Your task to perform on an android device: all mails in gmail Image 0: 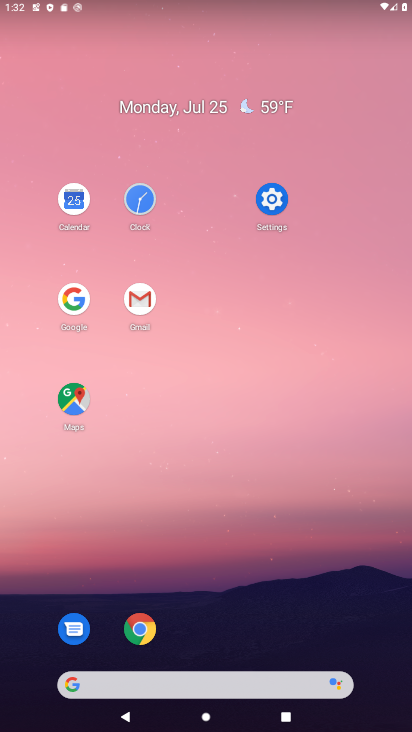
Step 0: click (139, 305)
Your task to perform on an android device: all mails in gmail Image 1: 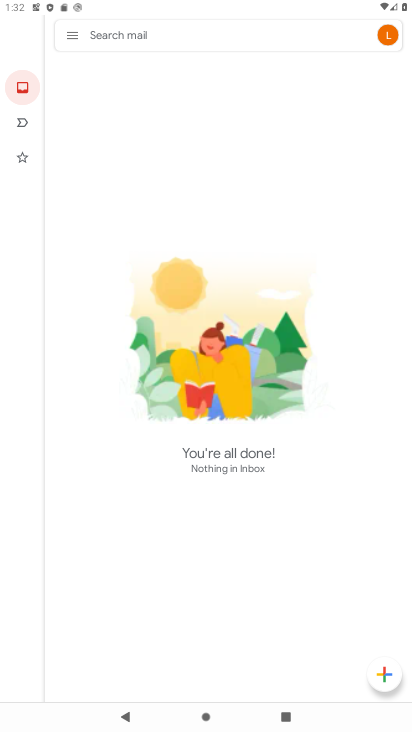
Step 1: task complete